Your task to perform on an android device: Open Yahoo.com Image 0: 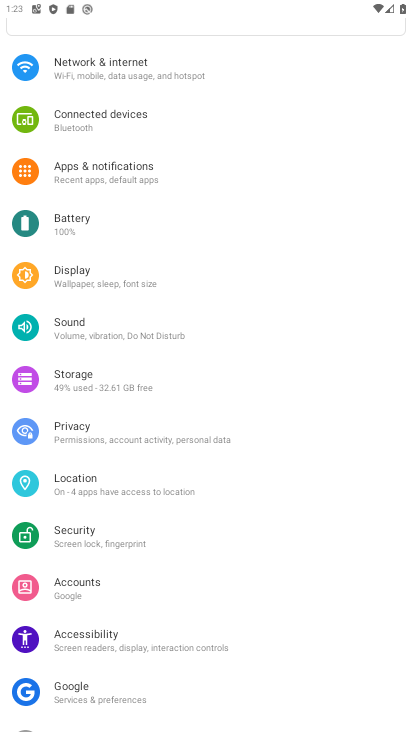
Step 0: press back button
Your task to perform on an android device: Open Yahoo.com Image 1: 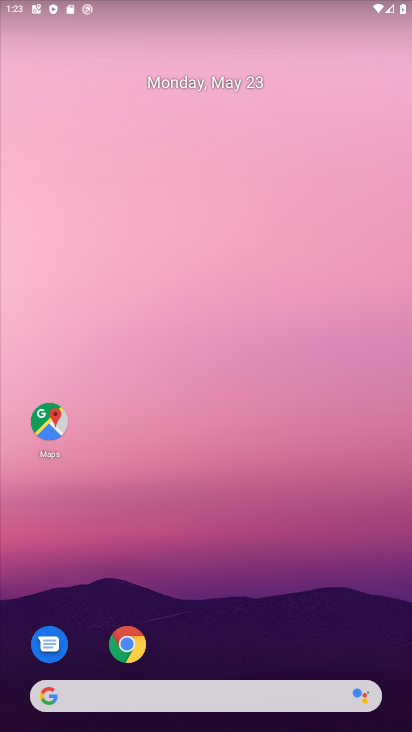
Step 1: drag from (239, 592) to (233, 10)
Your task to perform on an android device: Open Yahoo.com Image 2: 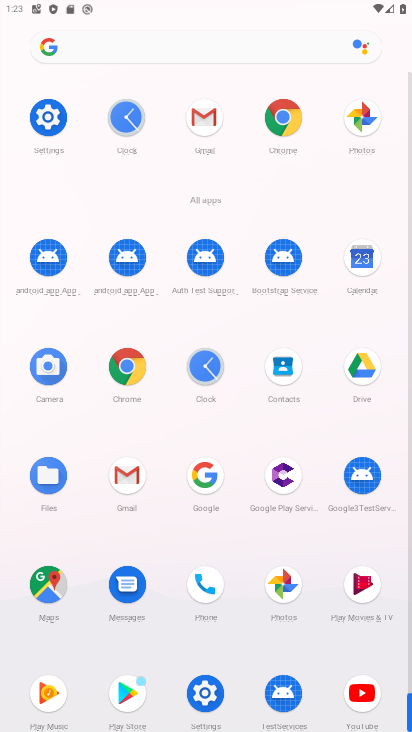
Step 2: click (127, 365)
Your task to perform on an android device: Open Yahoo.com Image 3: 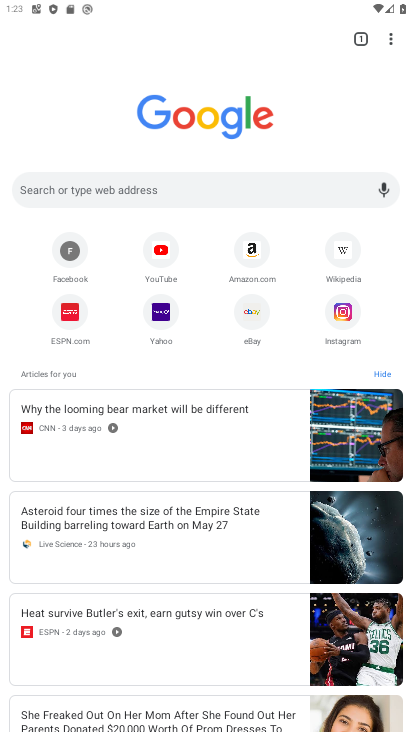
Step 3: click (160, 314)
Your task to perform on an android device: Open Yahoo.com Image 4: 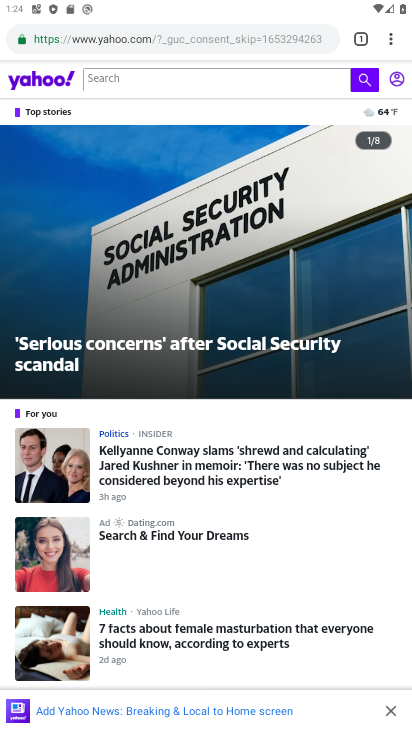
Step 4: task complete